Your task to perform on an android device: turn on showing notifications on the lock screen Image 0: 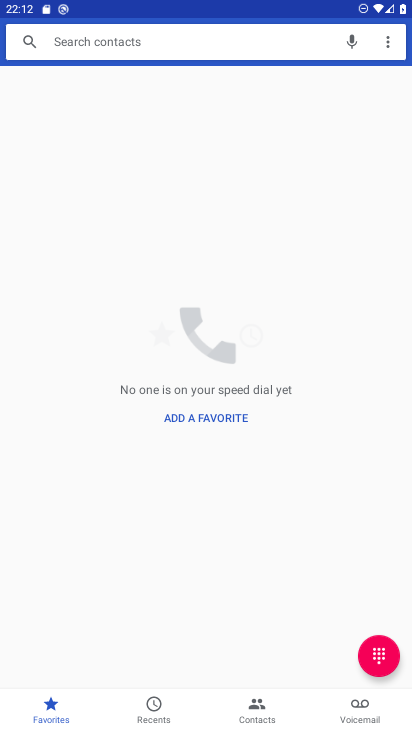
Step 0: press home button
Your task to perform on an android device: turn on showing notifications on the lock screen Image 1: 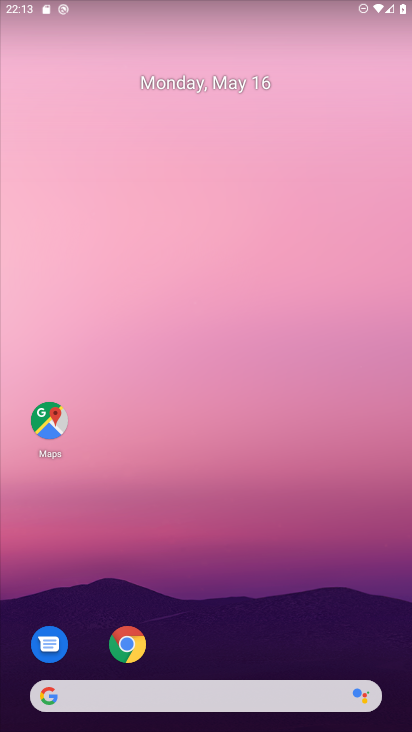
Step 1: press home button
Your task to perform on an android device: turn on showing notifications on the lock screen Image 2: 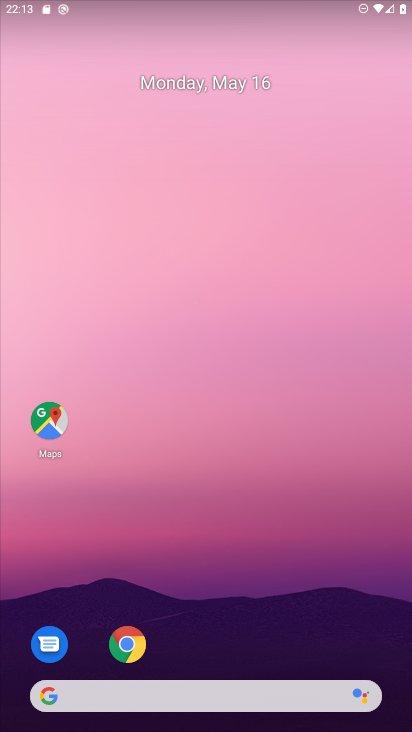
Step 2: drag from (34, 650) to (284, 212)
Your task to perform on an android device: turn on showing notifications on the lock screen Image 3: 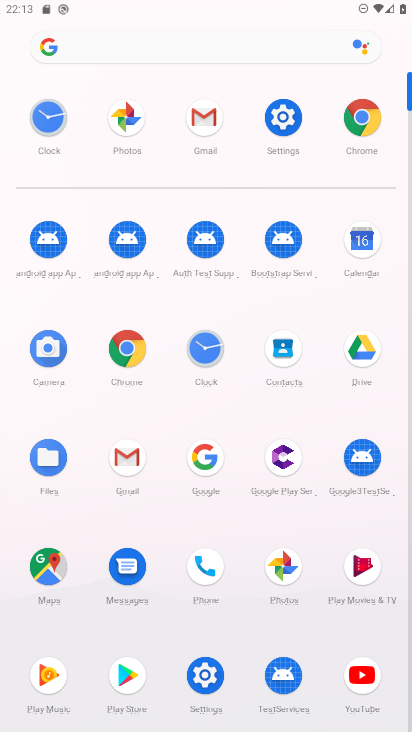
Step 3: click (296, 124)
Your task to perform on an android device: turn on showing notifications on the lock screen Image 4: 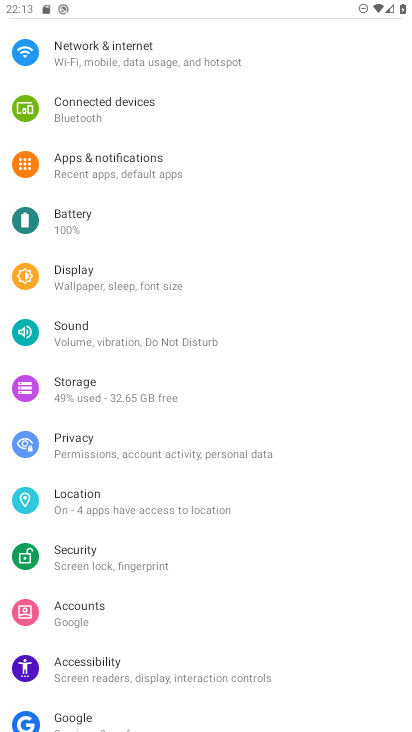
Step 4: click (123, 165)
Your task to perform on an android device: turn on showing notifications on the lock screen Image 5: 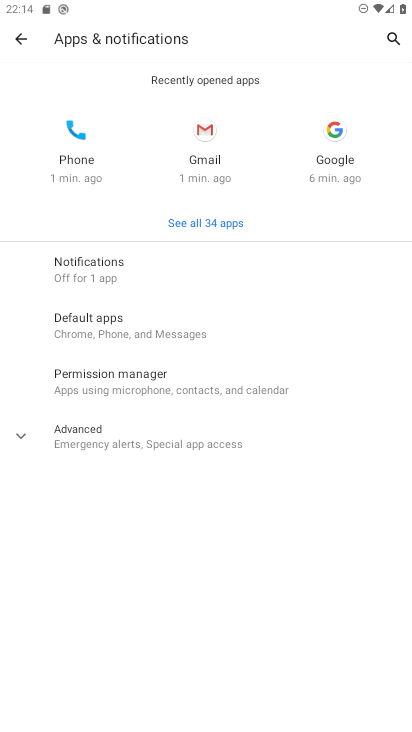
Step 5: click (120, 285)
Your task to perform on an android device: turn on showing notifications on the lock screen Image 6: 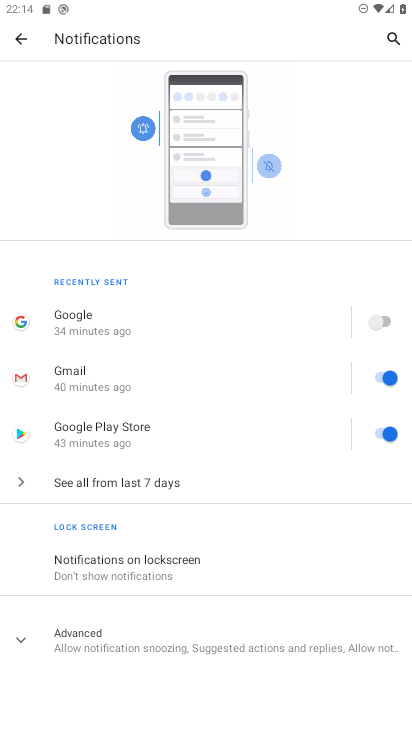
Step 6: click (116, 567)
Your task to perform on an android device: turn on showing notifications on the lock screen Image 7: 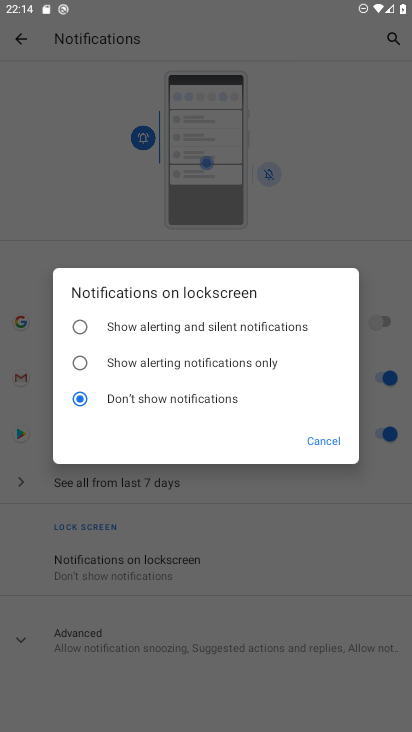
Step 7: click (75, 328)
Your task to perform on an android device: turn on showing notifications on the lock screen Image 8: 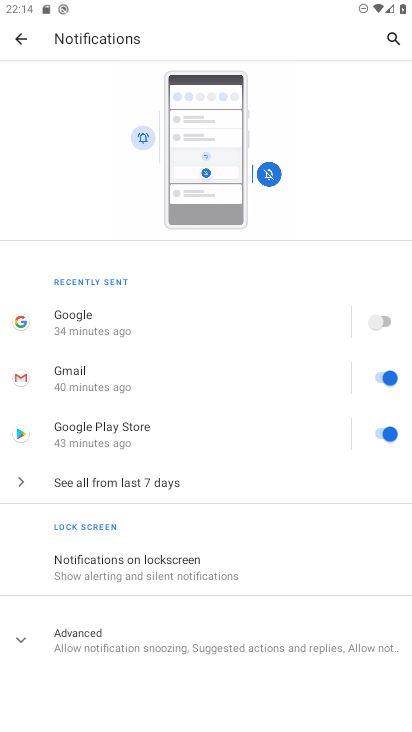
Step 8: task complete